Your task to perform on an android device: Go to Yahoo.com Image 0: 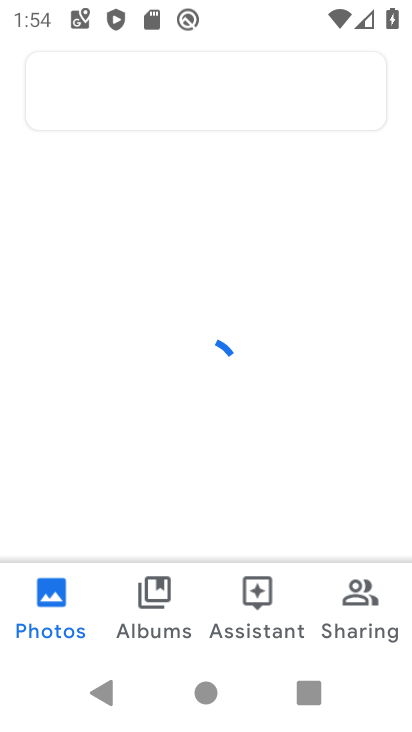
Step 0: press home button
Your task to perform on an android device: Go to Yahoo.com Image 1: 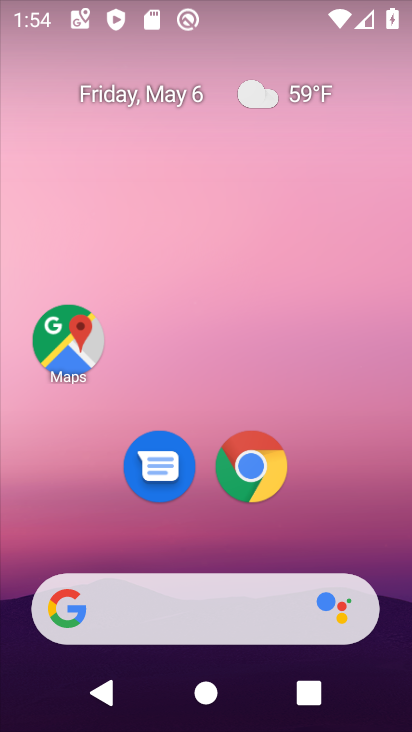
Step 1: click (252, 463)
Your task to perform on an android device: Go to Yahoo.com Image 2: 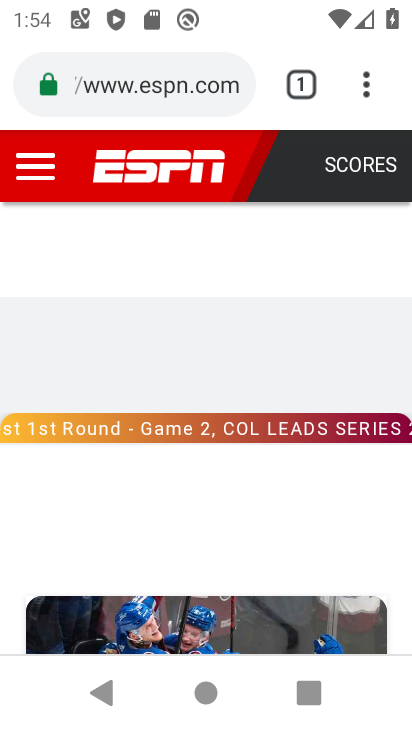
Step 2: click (297, 87)
Your task to perform on an android device: Go to Yahoo.com Image 3: 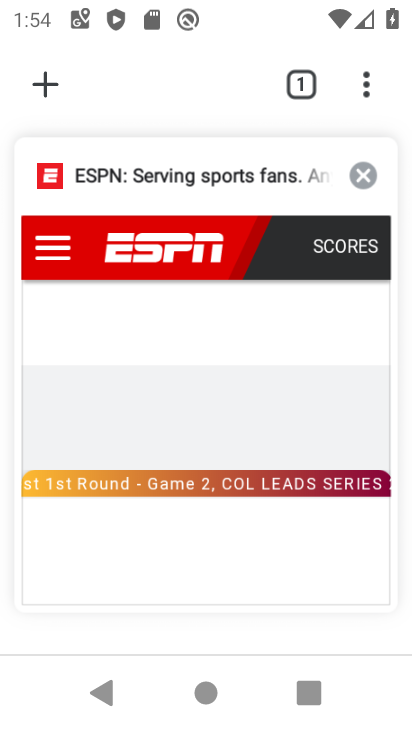
Step 3: click (32, 89)
Your task to perform on an android device: Go to Yahoo.com Image 4: 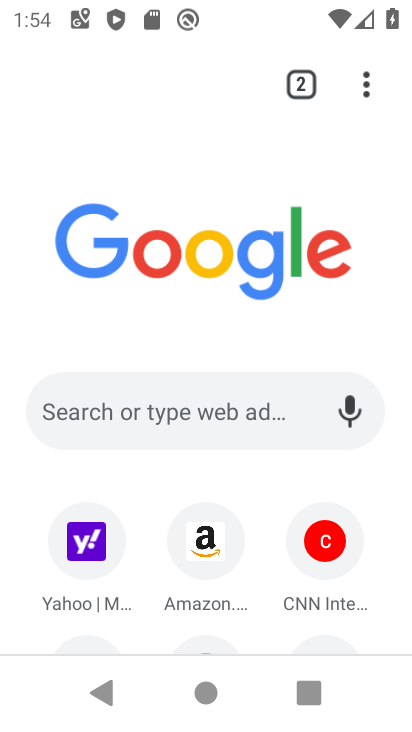
Step 4: click (89, 532)
Your task to perform on an android device: Go to Yahoo.com Image 5: 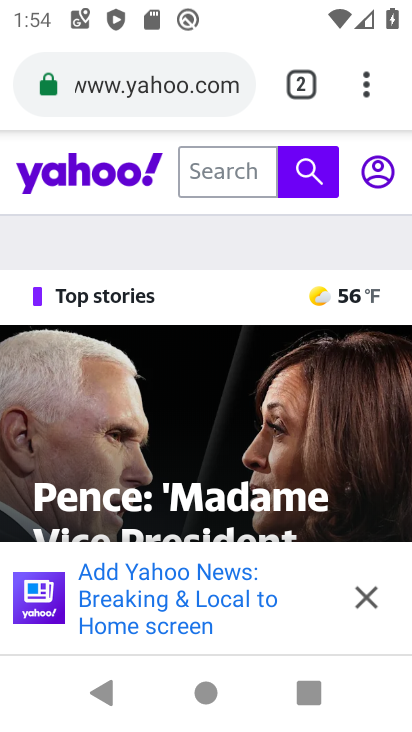
Step 5: task complete